Your task to perform on an android device: Search for Mexican restaurants on Maps Image 0: 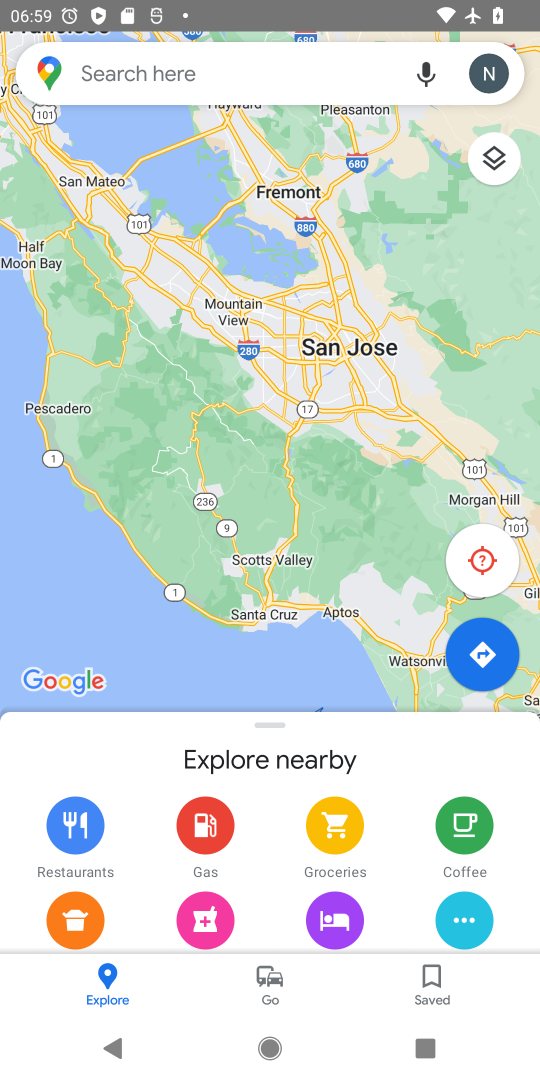
Step 0: press home button
Your task to perform on an android device: Search for Mexican restaurants on Maps Image 1: 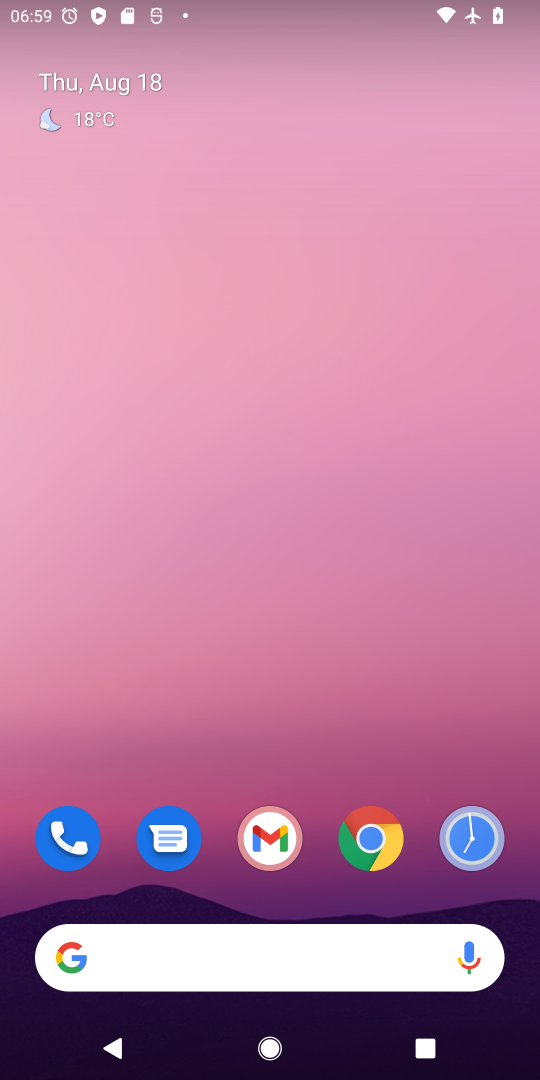
Step 1: drag from (434, 861) to (287, 37)
Your task to perform on an android device: Search for Mexican restaurants on Maps Image 2: 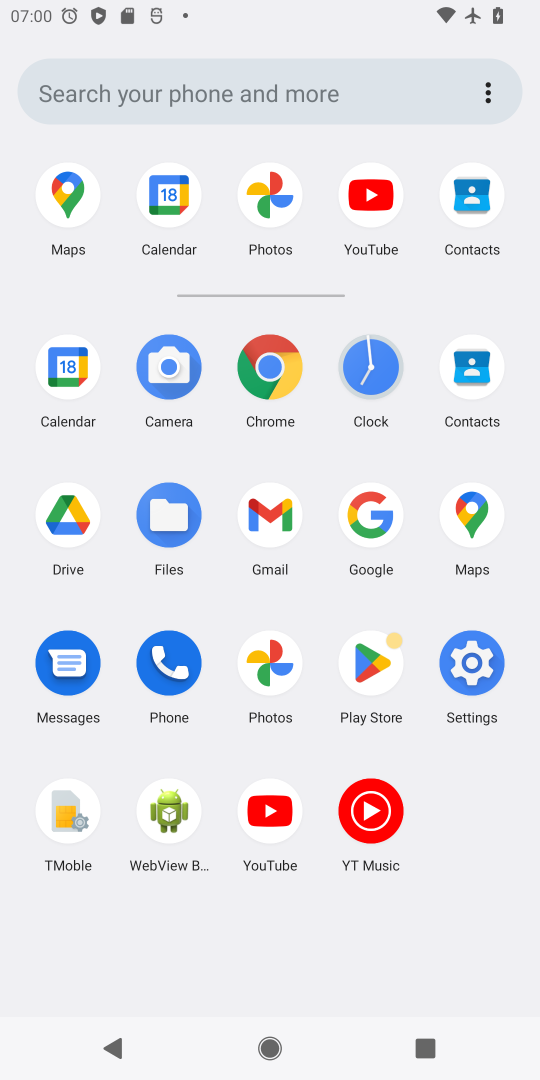
Step 2: click (57, 187)
Your task to perform on an android device: Search for Mexican restaurants on Maps Image 3: 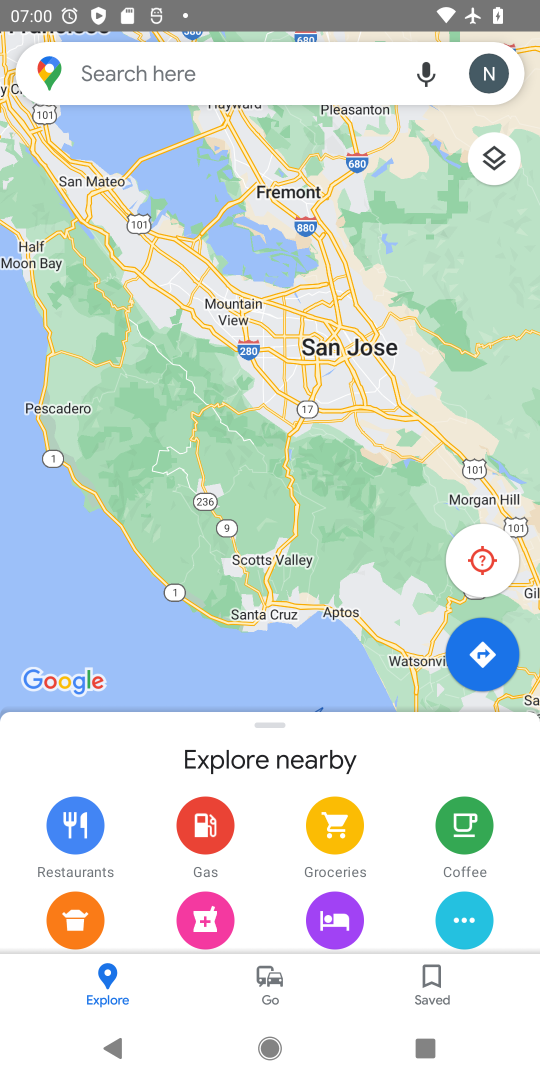
Step 3: click (164, 67)
Your task to perform on an android device: Search for Mexican restaurants on Maps Image 4: 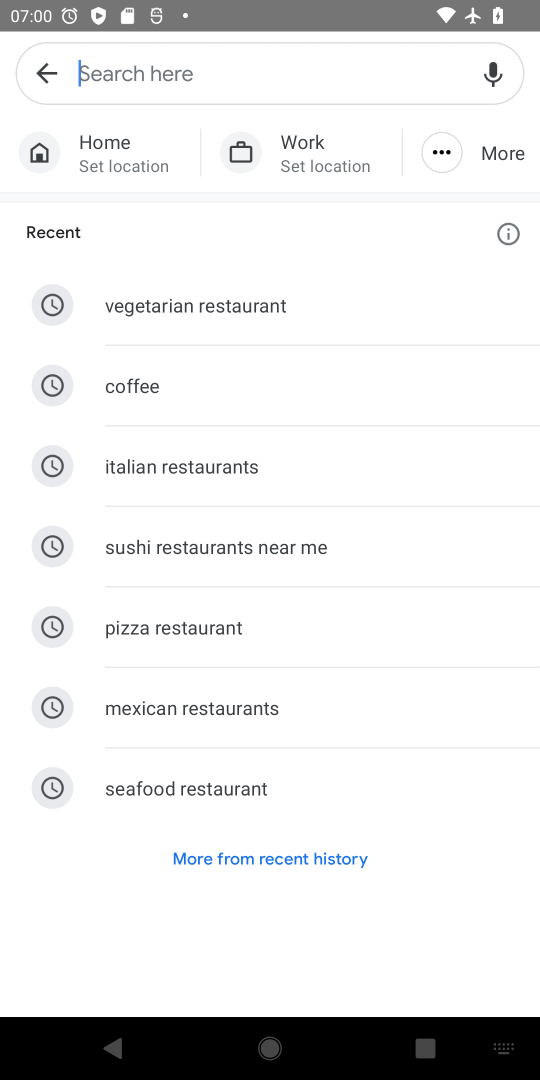
Step 4: click (190, 707)
Your task to perform on an android device: Search for Mexican restaurants on Maps Image 5: 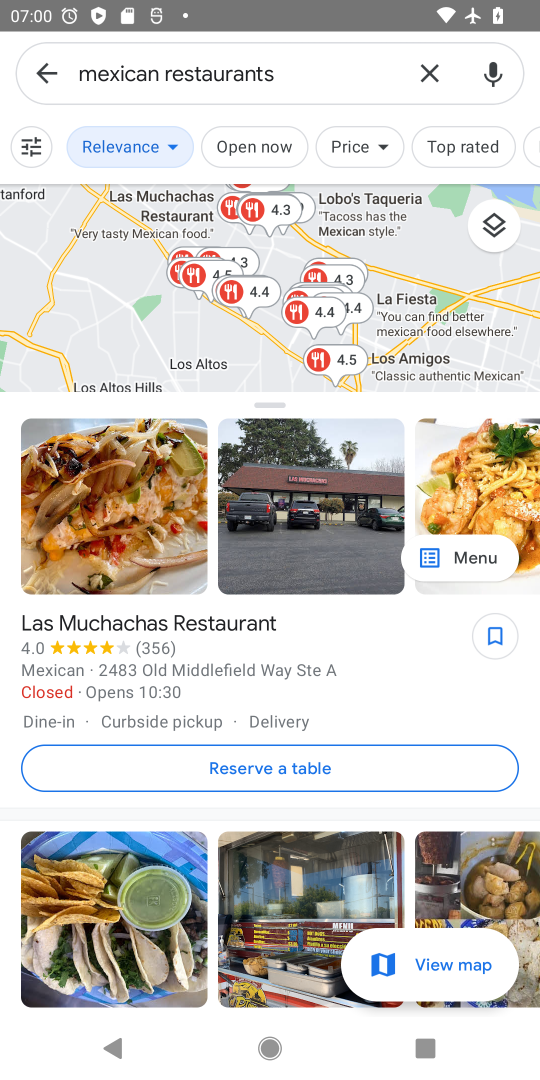
Step 5: task complete